Your task to perform on an android device: Open settings on Google Maps Image 0: 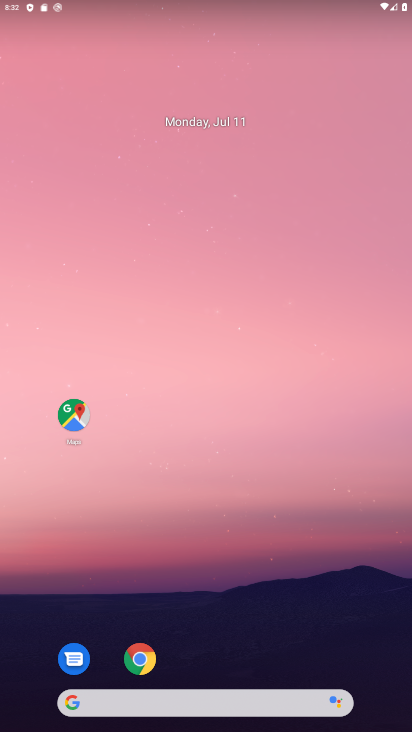
Step 0: click (62, 407)
Your task to perform on an android device: Open settings on Google Maps Image 1: 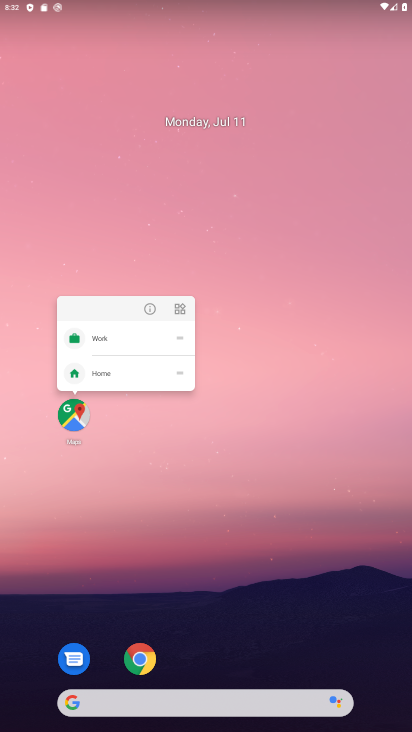
Step 1: click (80, 415)
Your task to perform on an android device: Open settings on Google Maps Image 2: 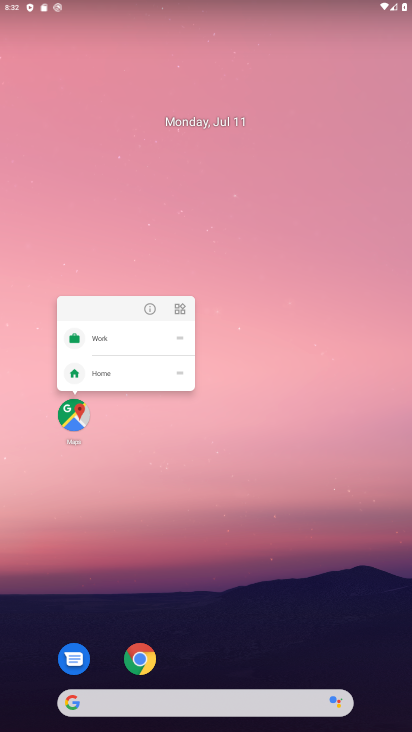
Step 2: click (68, 421)
Your task to perform on an android device: Open settings on Google Maps Image 3: 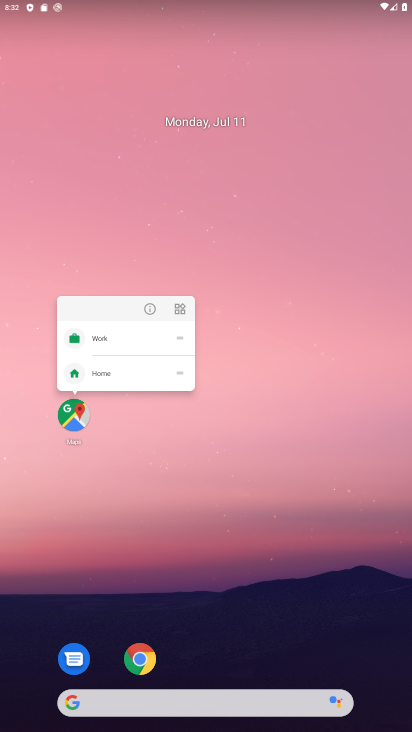
Step 3: click (70, 405)
Your task to perform on an android device: Open settings on Google Maps Image 4: 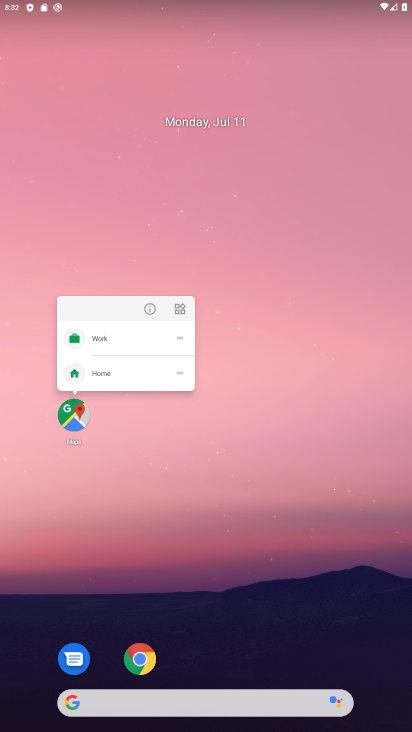
Step 4: click (71, 420)
Your task to perform on an android device: Open settings on Google Maps Image 5: 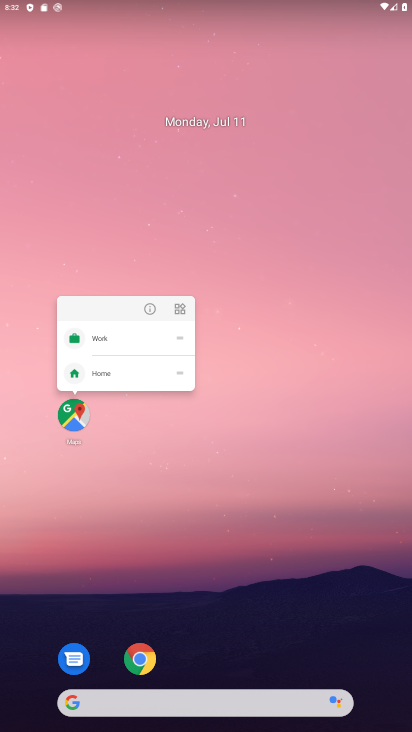
Step 5: task complete